Your task to perform on an android device: set an alarm Image 0: 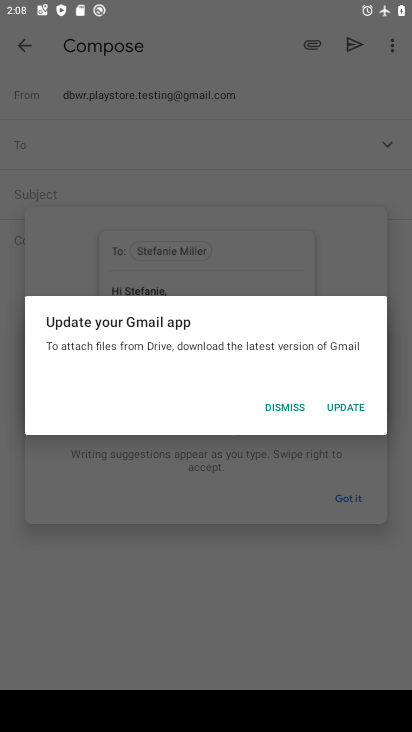
Step 0: press home button
Your task to perform on an android device: set an alarm Image 1: 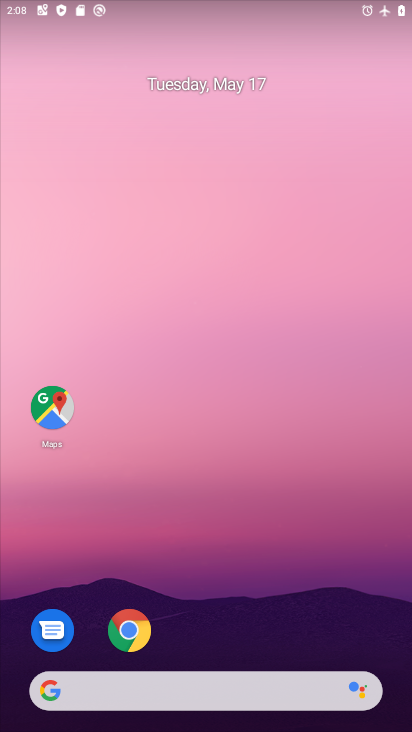
Step 1: drag from (373, 621) to (315, 134)
Your task to perform on an android device: set an alarm Image 2: 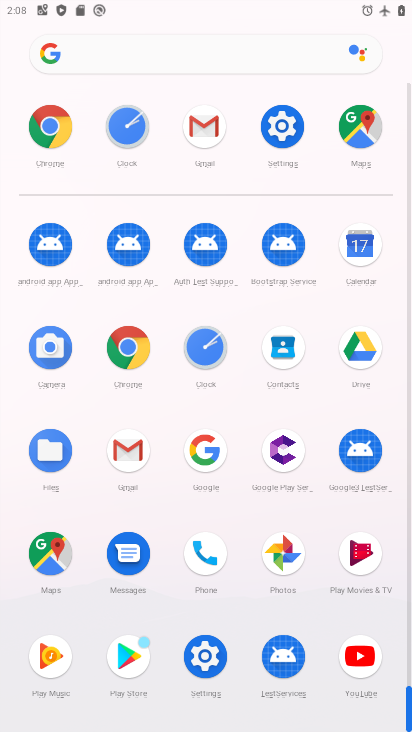
Step 2: click (287, 133)
Your task to perform on an android device: set an alarm Image 3: 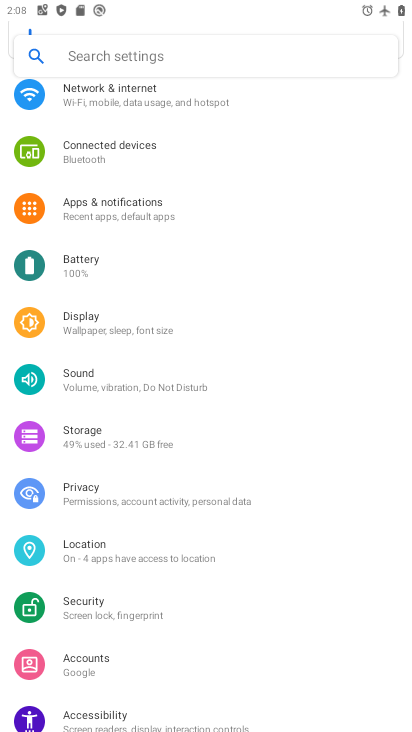
Step 3: click (161, 101)
Your task to perform on an android device: set an alarm Image 4: 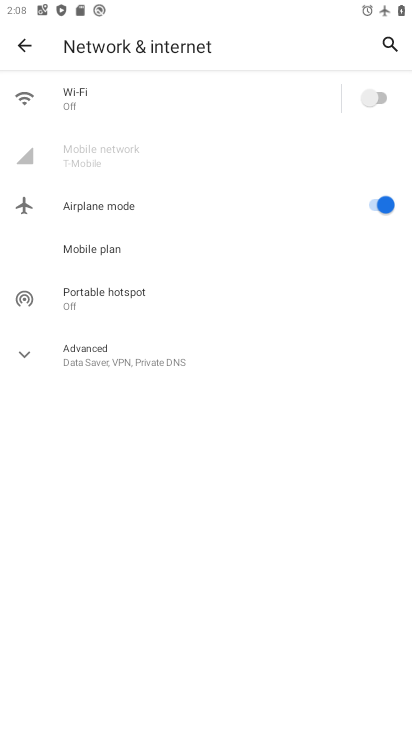
Step 4: click (376, 205)
Your task to perform on an android device: set an alarm Image 5: 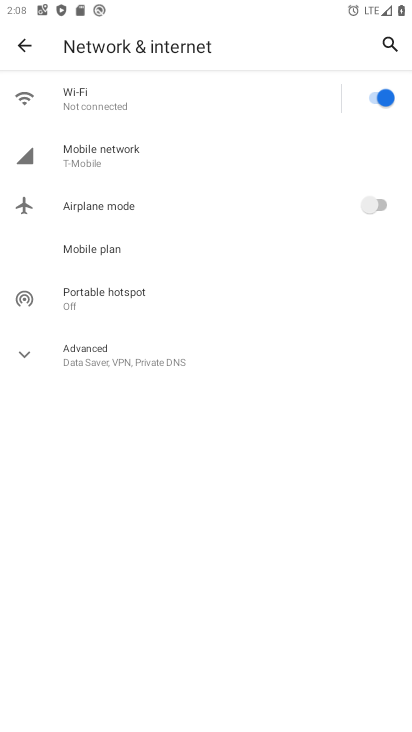
Step 5: task complete